Your task to perform on an android device: Show me productivity apps on the Play Store Image 0: 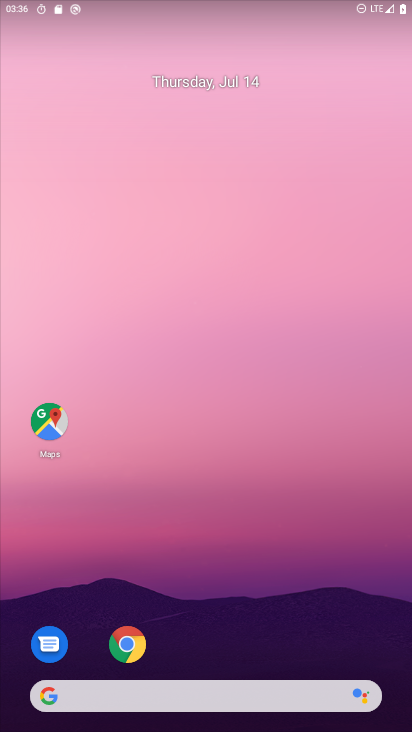
Step 0: drag from (249, 617) to (250, 27)
Your task to perform on an android device: Show me productivity apps on the Play Store Image 1: 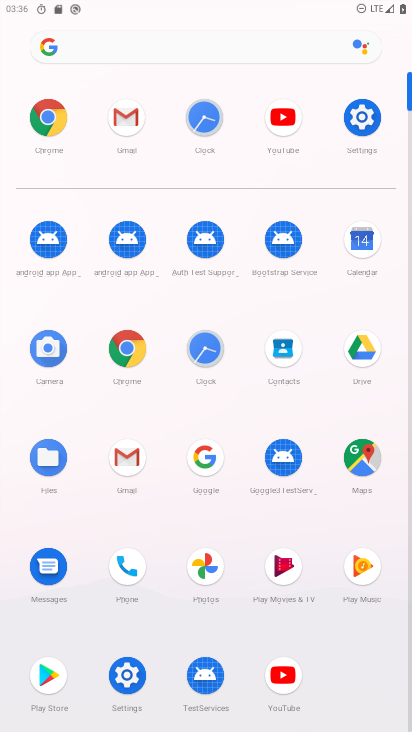
Step 1: click (49, 673)
Your task to perform on an android device: Show me productivity apps on the Play Store Image 2: 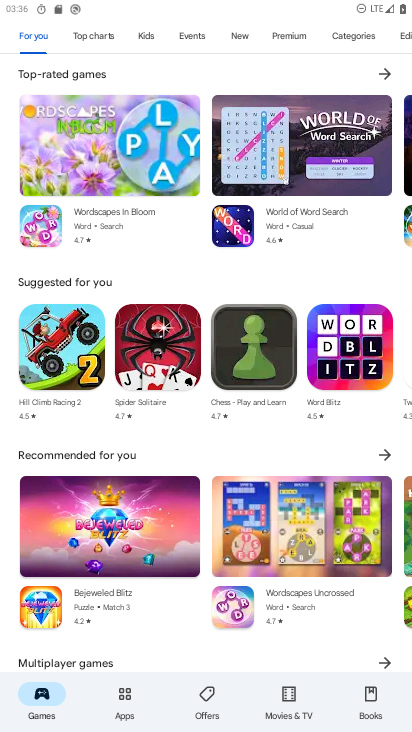
Step 2: click (116, 702)
Your task to perform on an android device: Show me productivity apps on the Play Store Image 3: 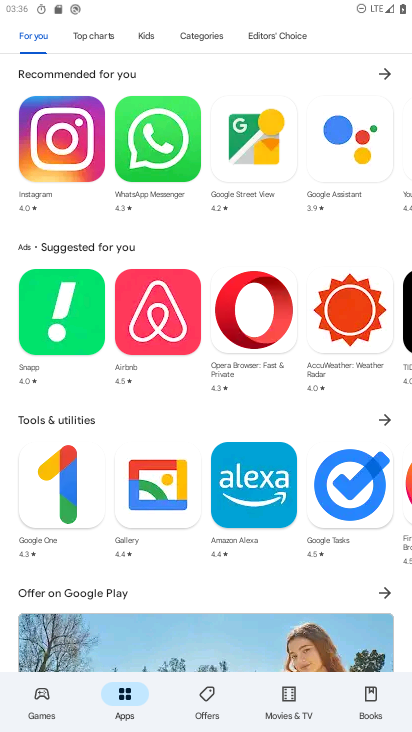
Step 3: task complete